Your task to perform on an android device: turn on bluetooth scan Image 0: 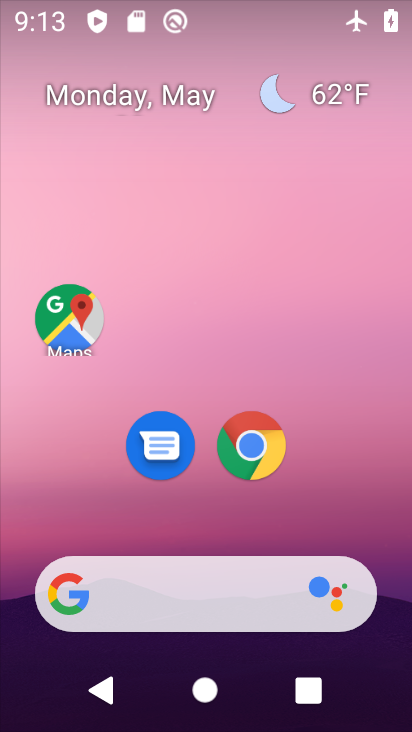
Step 0: drag from (387, 627) to (300, 181)
Your task to perform on an android device: turn on bluetooth scan Image 1: 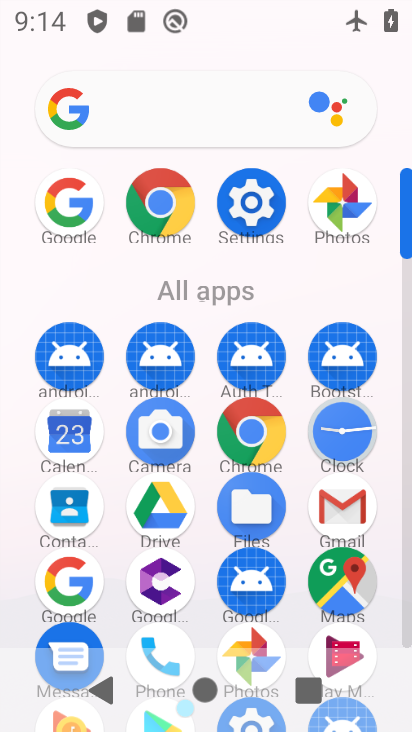
Step 1: click (247, 185)
Your task to perform on an android device: turn on bluetooth scan Image 2: 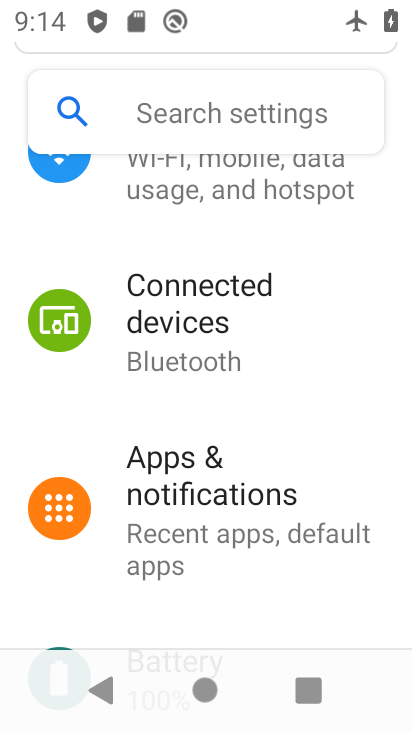
Step 2: drag from (206, 542) to (230, 123)
Your task to perform on an android device: turn on bluetooth scan Image 3: 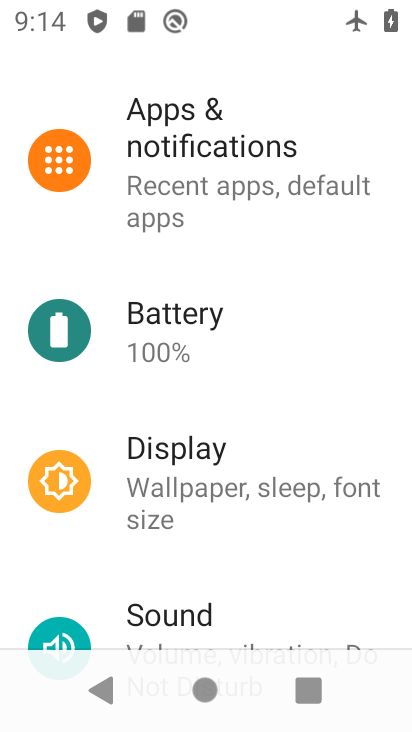
Step 3: drag from (171, 573) to (185, 149)
Your task to perform on an android device: turn on bluetooth scan Image 4: 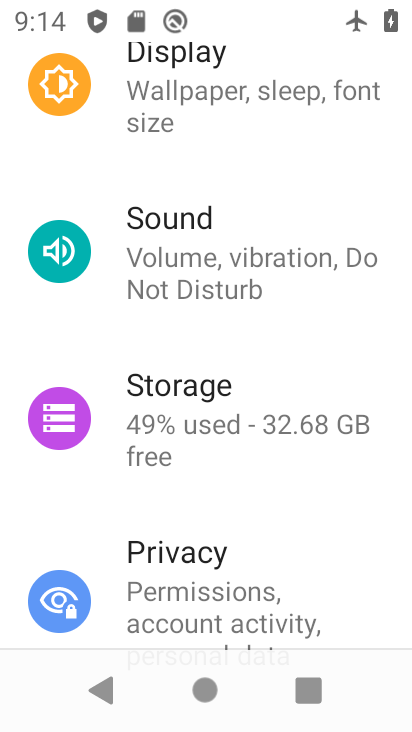
Step 4: drag from (200, 580) to (226, 160)
Your task to perform on an android device: turn on bluetooth scan Image 5: 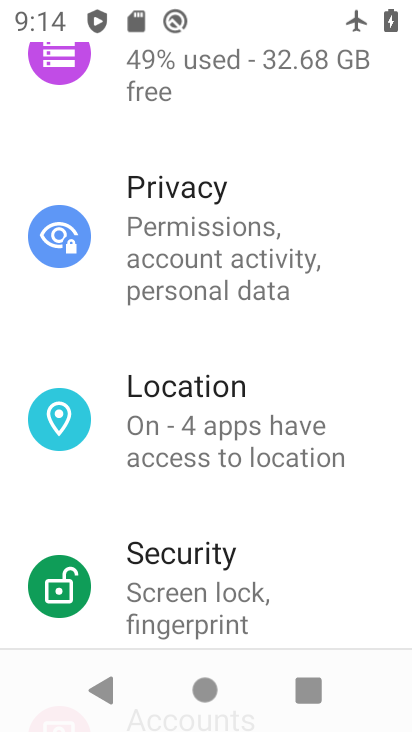
Step 5: click (214, 431)
Your task to perform on an android device: turn on bluetooth scan Image 6: 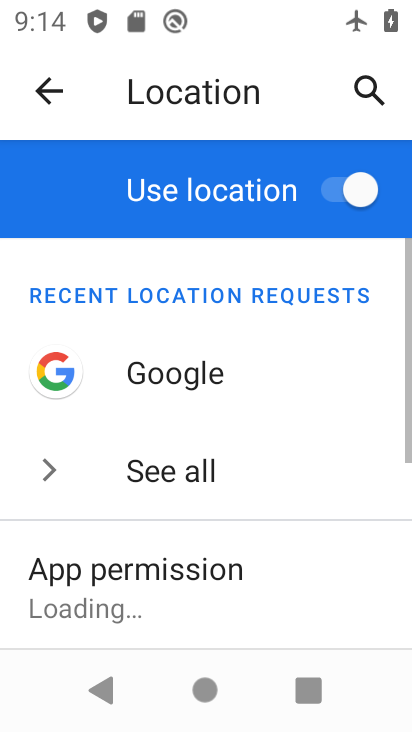
Step 6: drag from (222, 578) to (249, 204)
Your task to perform on an android device: turn on bluetooth scan Image 7: 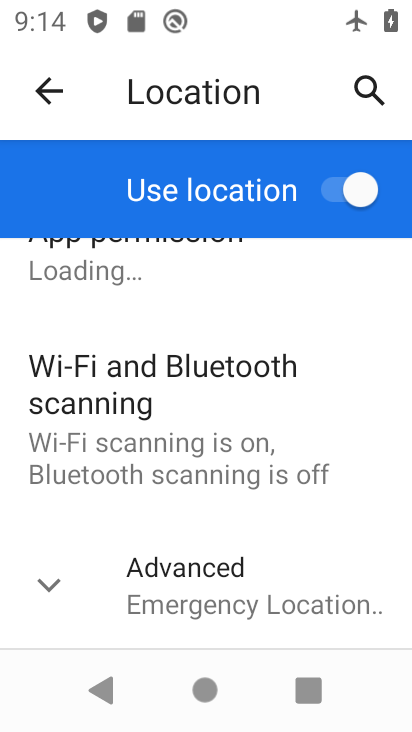
Step 7: click (213, 456)
Your task to perform on an android device: turn on bluetooth scan Image 8: 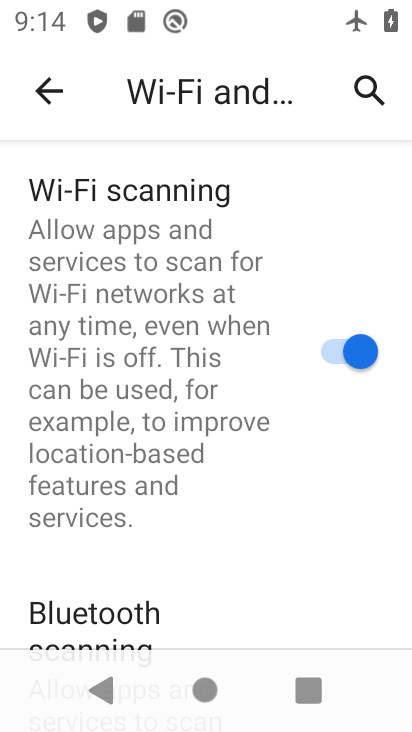
Step 8: drag from (269, 538) to (290, 97)
Your task to perform on an android device: turn on bluetooth scan Image 9: 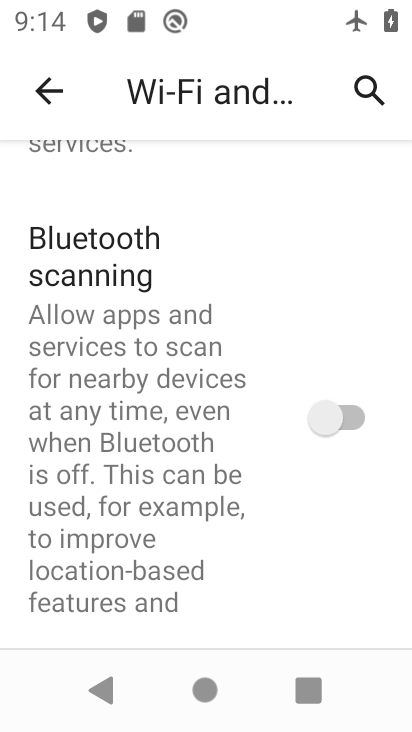
Step 9: click (305, 442)
Your task to perform on an android device: turn on bluetooth scan Image 10: 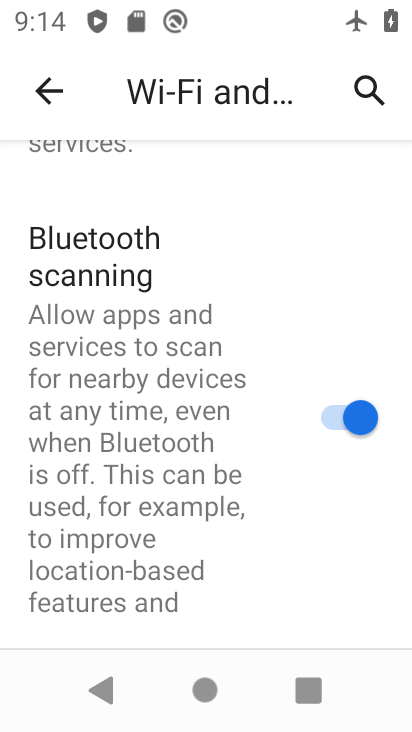
Step 10: task complete